Your task to perform on an android device: all mails in gmail Image 0: 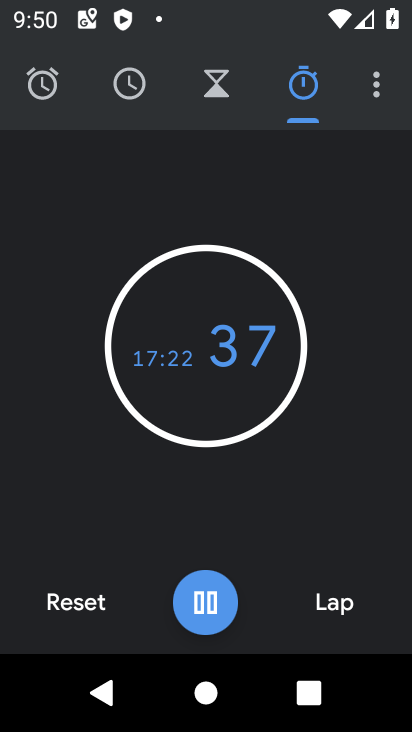
Step 0: press home button
Your task to perform on an android device: all mails in gmail Image 1: 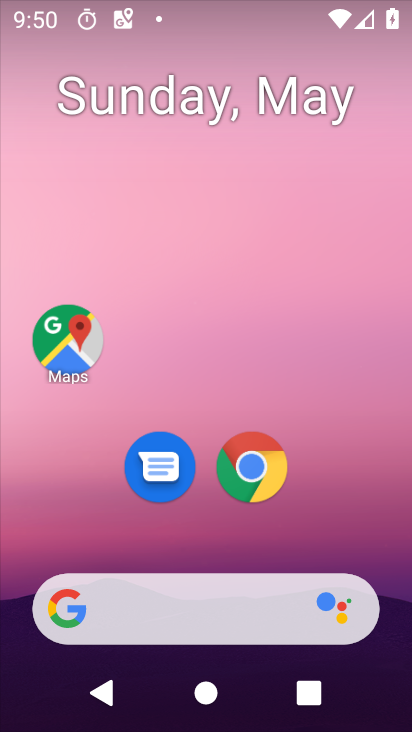
Step 1: drag from (202, 548) to (176, 265)
Your task to perform on an android device: all mails in gmail Image 2: 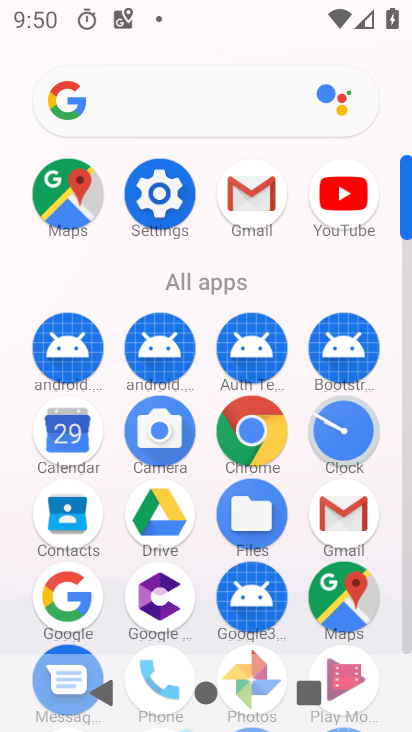
Step 2: click (247, 205)
Your task to perform on an android device: all mails in gmail Image 3: 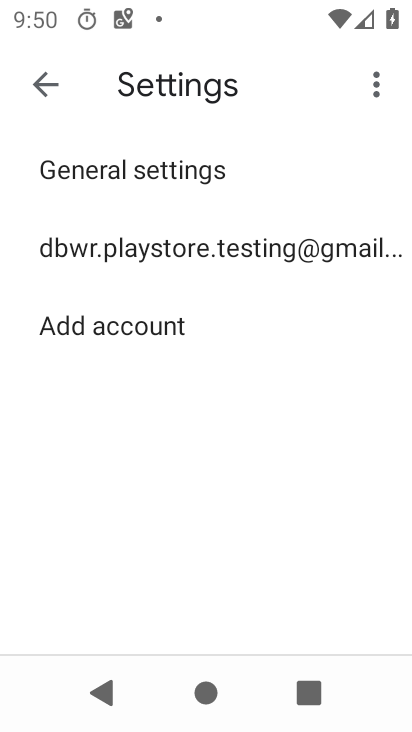
Step 3: click (37, 82)
Your task to perform on an android device: all mails in gmail Image 4: 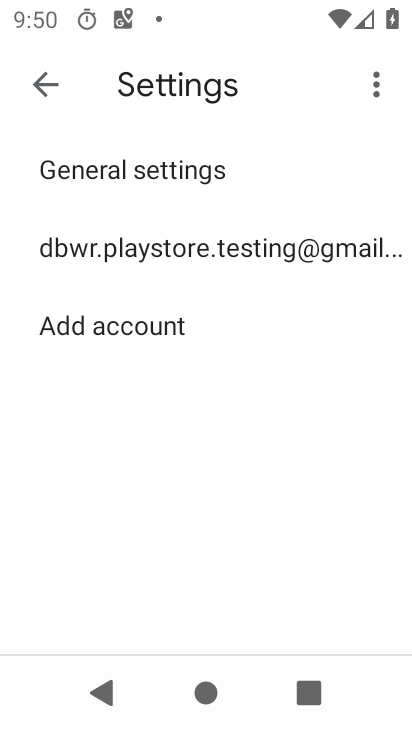
Step 4: click (41, 84)
Your task to perform on an android device: all mails in gmail Image 5: 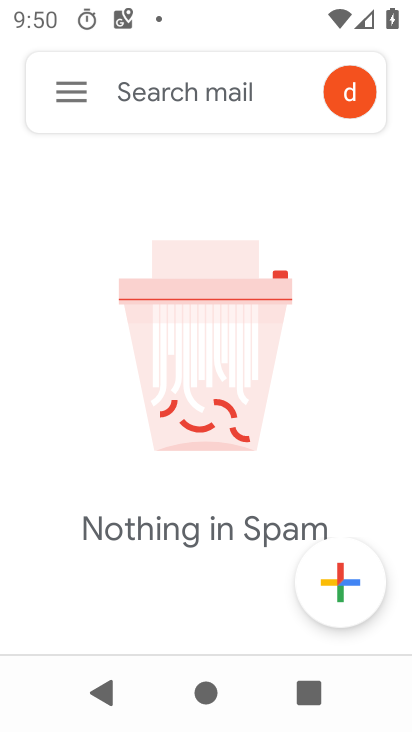
Step 5: click (84, 96)
Your task to perform on an android device: all mails in gmail Image 6: 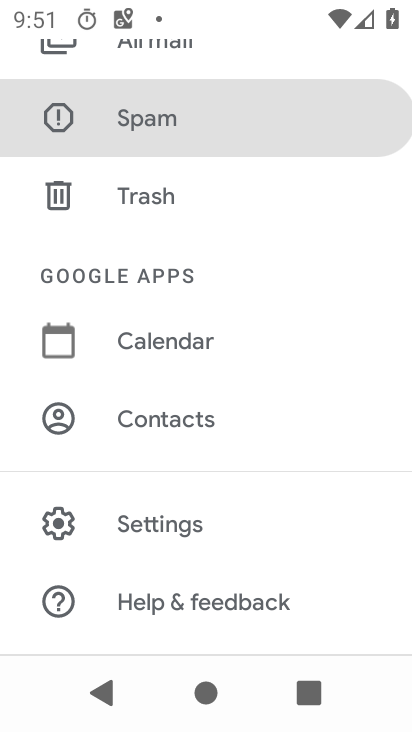
Step 6: drag from (204, 213) to (195, 529)
Your task to perform on an android device: all mails in gmail Image 7: 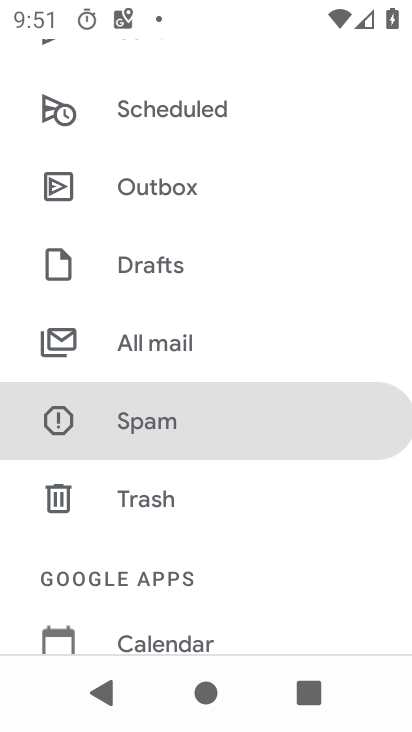
Step 7: click (183, 354)
Your task to perform on an android device: all mails in gmail Image 8: 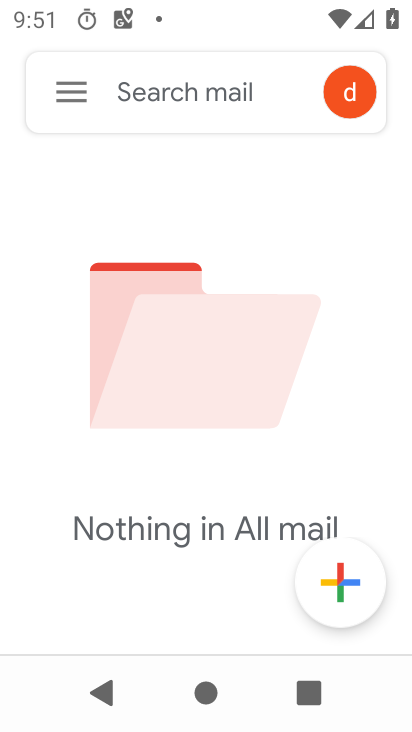
Step 8: task complete